Your task to perform on an android device: What's on my calendar today? Image 0: 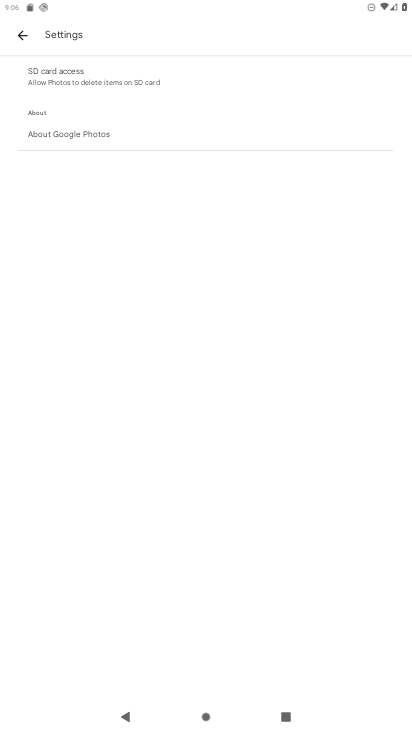
Step 0: press home button
Your task to perform on an android device: What's on my calendar today? Image 1: 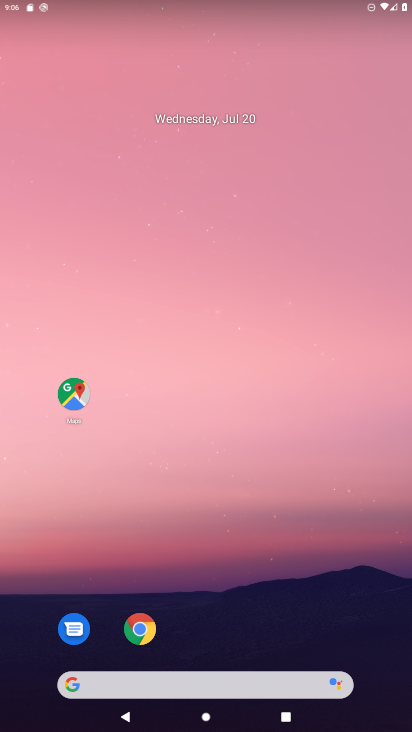
Step 1: drag from (386, 635) to (318, 66)
Your task to perform on an android device: What's on my calendar today? Image 2: 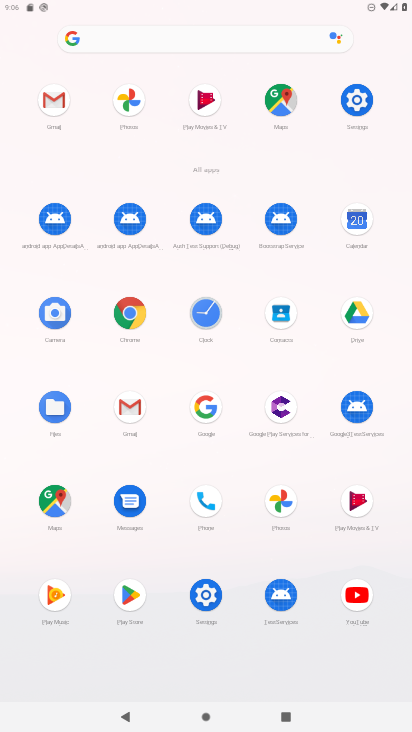
Step 2: click (355, 223)
Your task to perform on an android device: What's on my calendar today? Image 3: 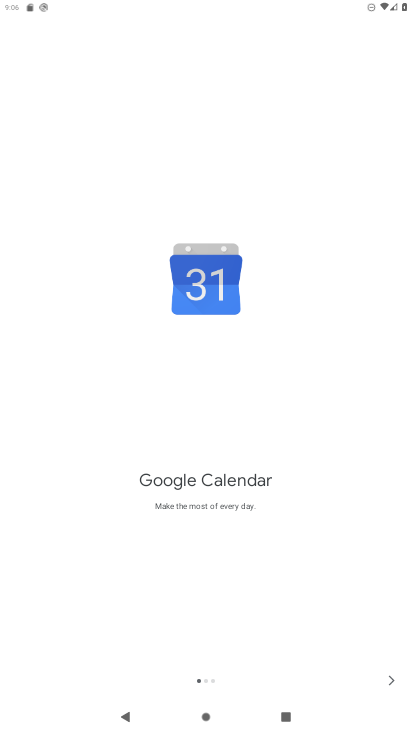
Step 3: click (389, 678)
Your task to perform on an android device: What's on my calendar today? Image 4: 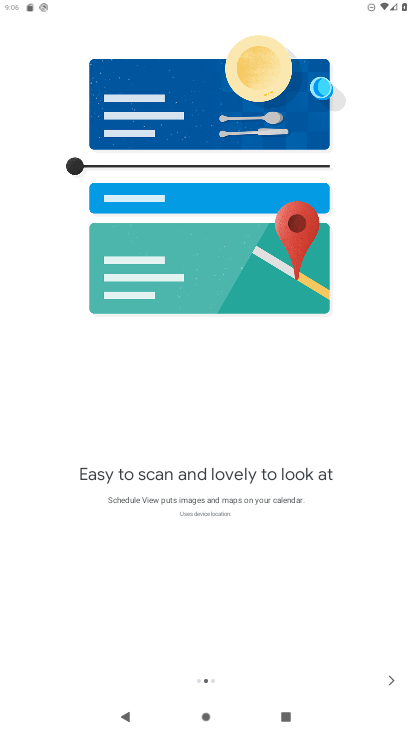
Step 4: click (389, 678)
Your task to perform on an android device: What's on my calendar today? Image 5: 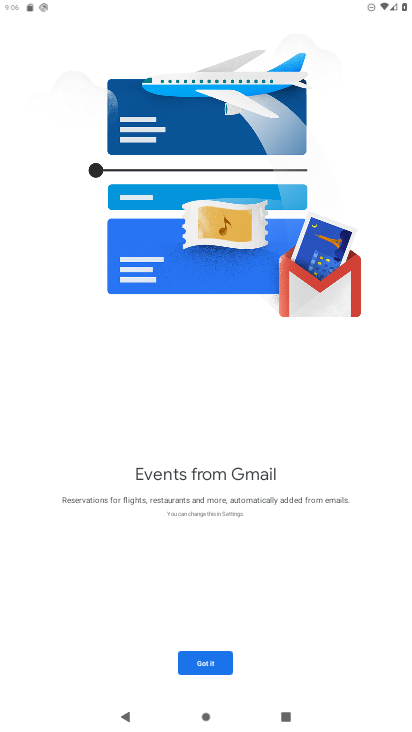
Step 5: click (204, 669)
Your task to perform on an android device: What's on my calendar today? Image 6: 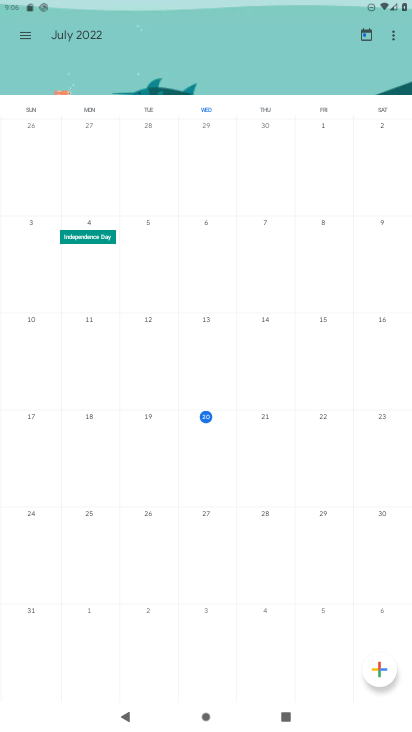
Step 6: click (19, 33)
Your task to perform on an android device: What's on my calendar today? Image 7: 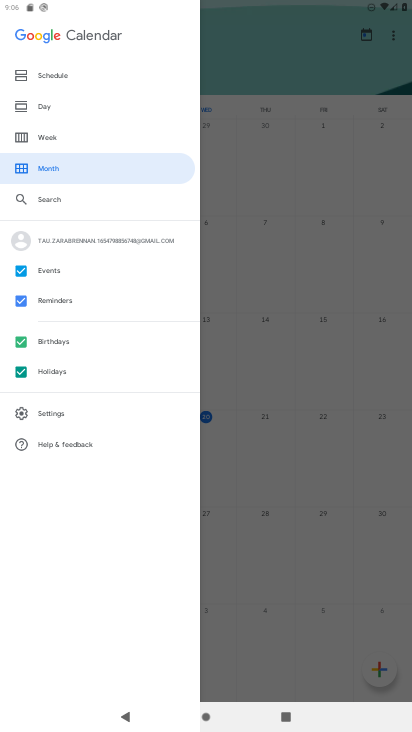
Step 7: click (46, 105)
Your task to perform on an android device: What's on my calendar today? Image 8: 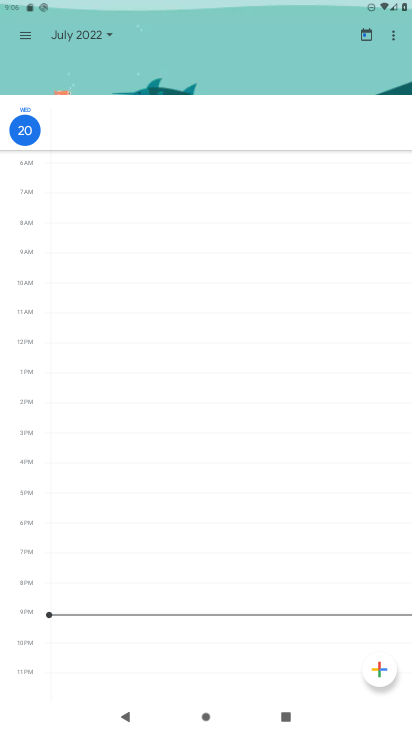
Step 8: task complete